Your task to perform on an android device: check storage Image 0: 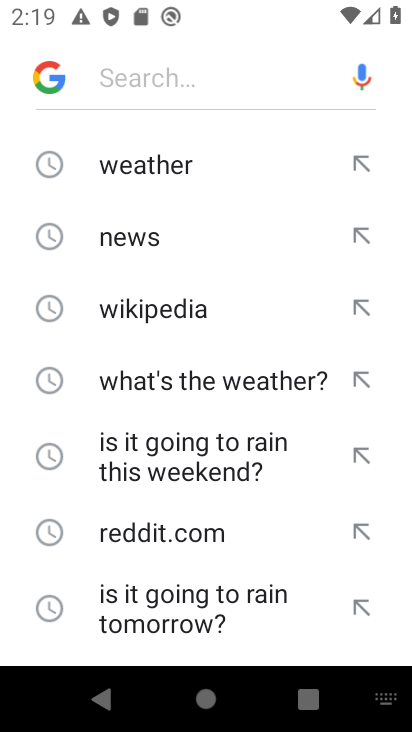
Step 0: press home button
Your task to perform on an android device: check storage Image 1: 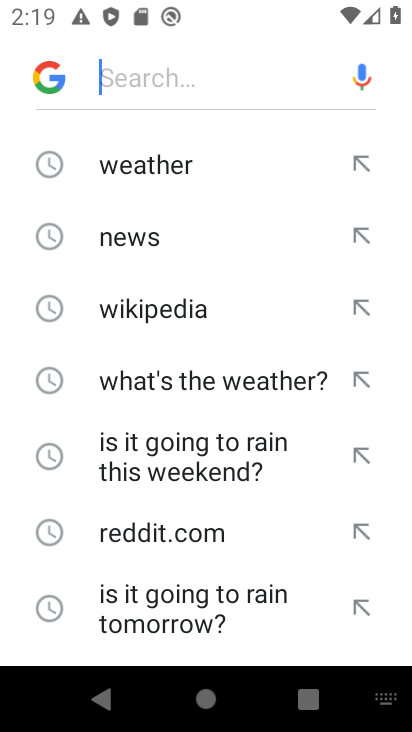
Step 1: press home button
Your task to perform on an android device: check storage Image 2: 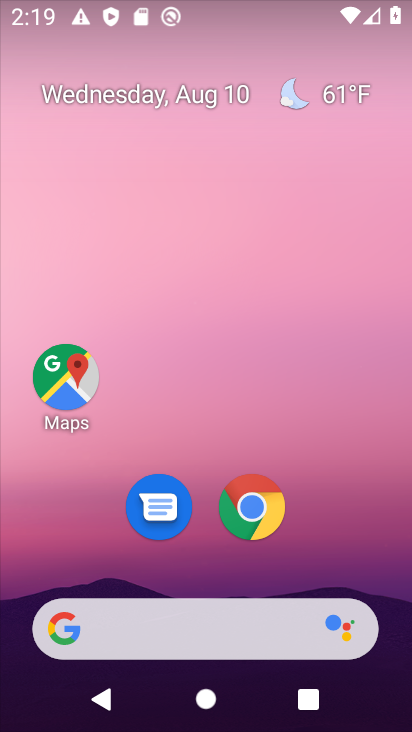
Step 2: drag from (353, 520) to (301, 3)
Your task to perform on an android device: check storage Image 3: 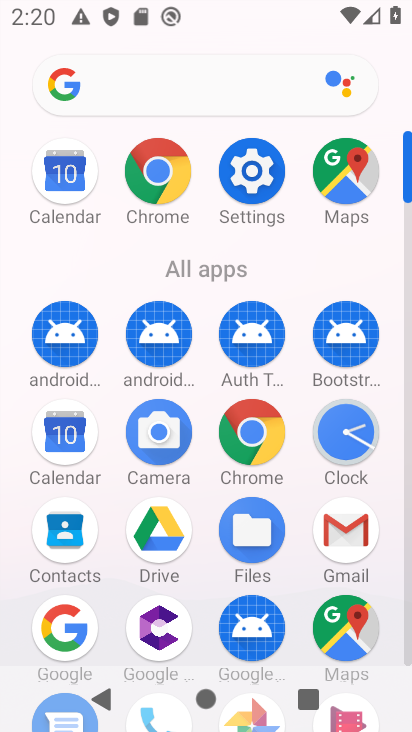
Step 3: click (253, 184)
Your task to perform on an android device: check storage Image 4: 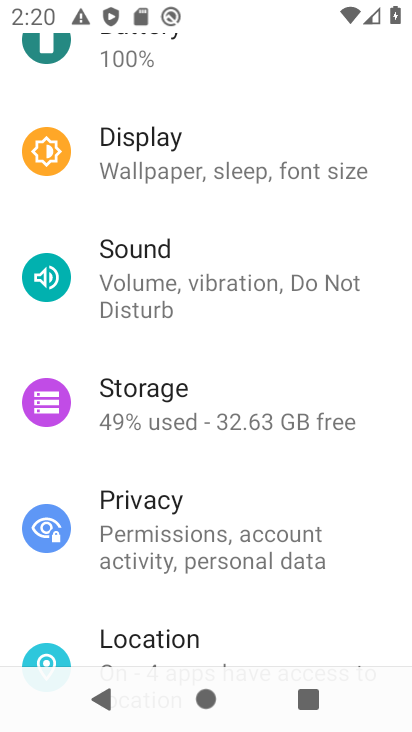
Step 4: click (171, 400)
Your task to perform on an android device: check storage Image 5: 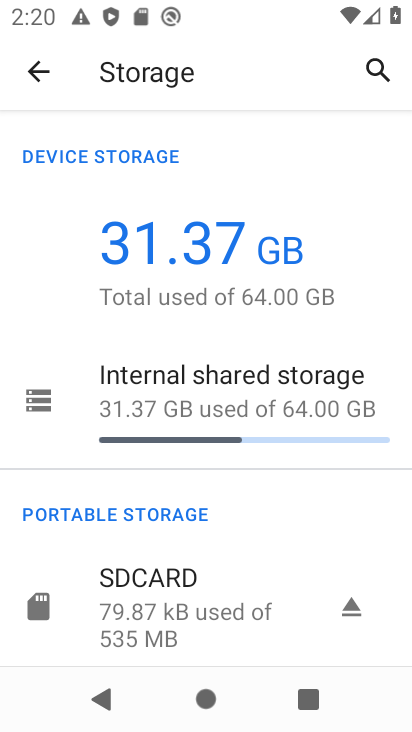
Step 5: task complete